Your task to perform on an android device: turn off translation in the chrome app Image 0: 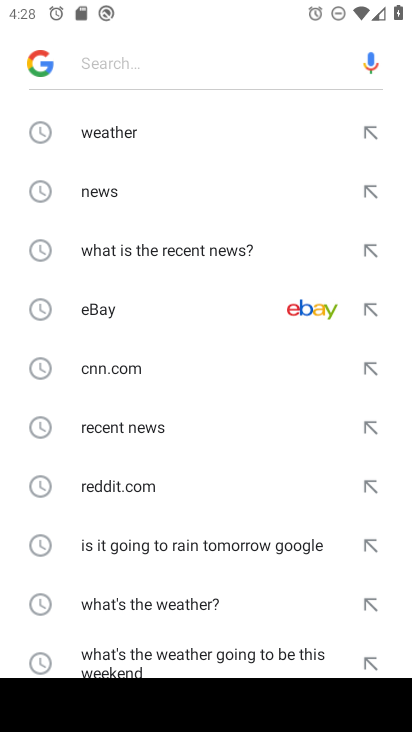
Step 0: press back button
Your task to perform on an android device: turn off translation in the chrome app Image 1: 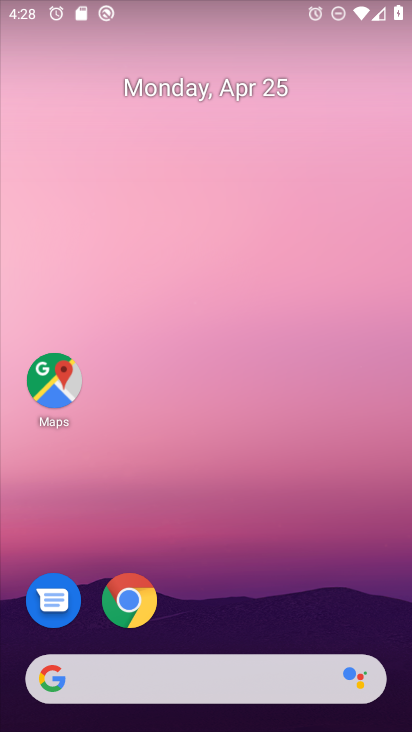
Step 1: drag from (220, 301) to (210, 37)
Your task to perform on an android device: turn off translation in the chrome app Image 2: 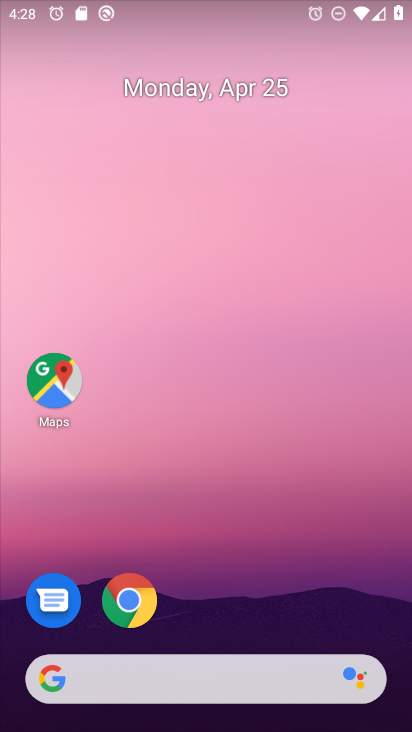
Step 2: drag from (262, 532) to (257, 0)
Your task to perform on an android device: turn off translation in the chrome app Image 3: 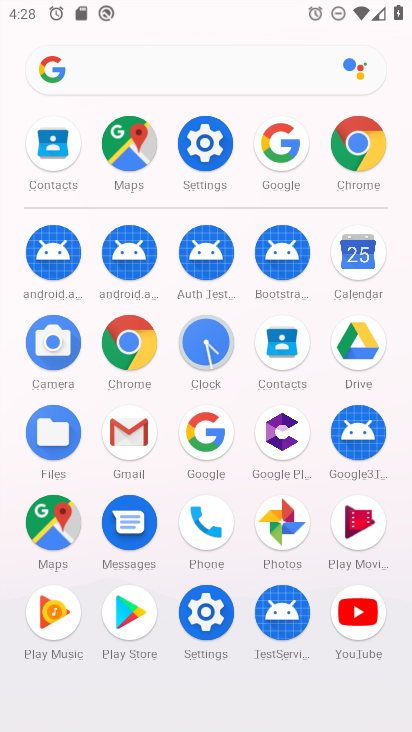
Step 3: drag from (2, 489) to (8, 236)
Your task to perform on an android device: turn off translation in the chrome app Image 4: 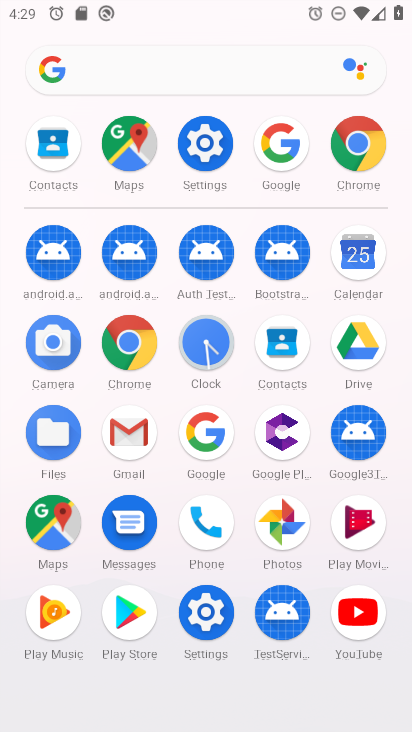
Step 4: drag from (4, 454) to (8, 186)
Your task to perform on an android device: turn off translation in the chrome app Image 5: 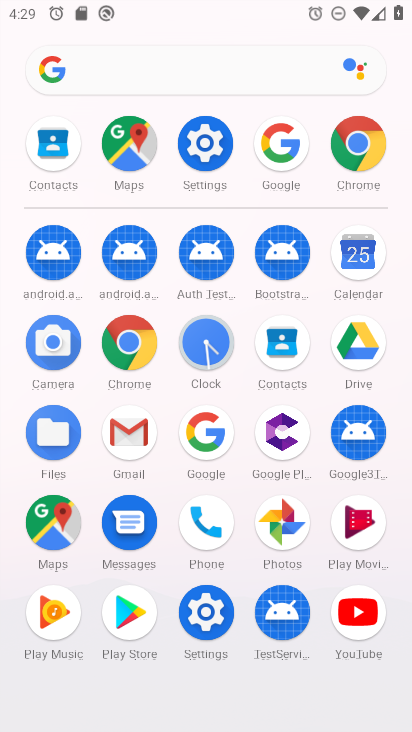
Step 5: click (126, 333)
Your task to perform on an android device: turn off translation in the chrome app Image 6: 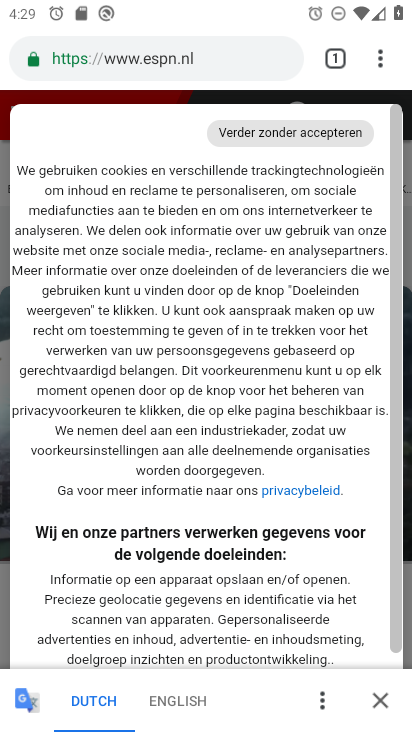
Step 6: drag from (377, 59) to (186, 651)
Your task to perform on an android device: turn off translation in the chrome app Image 7: 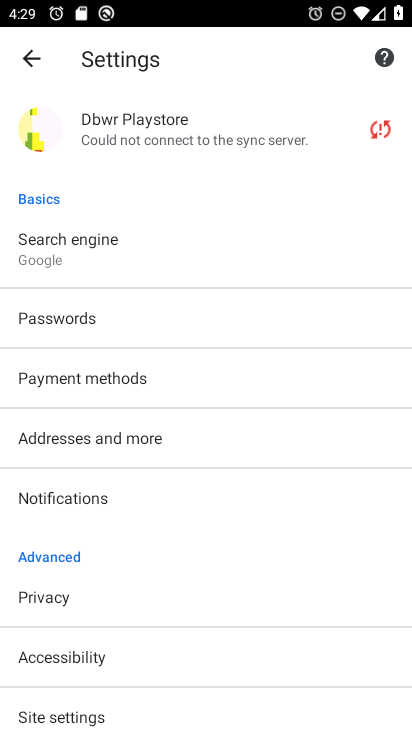
Step 7: drag from (186, 615) to (221, 146)
Your task to perform on an android device: turn off translation in the chrome app Image 8: 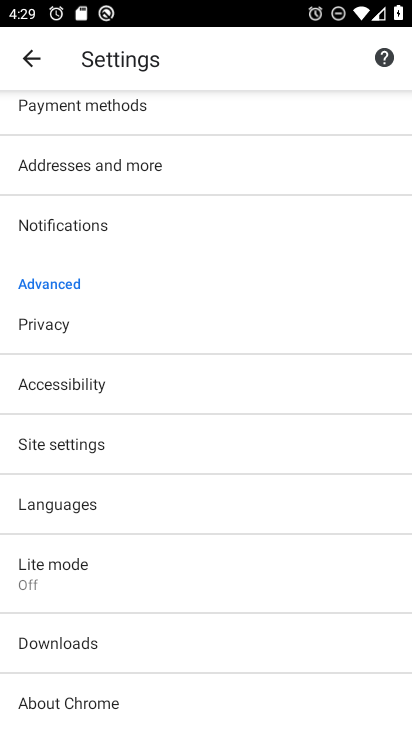
Step 8: click (87, 506)
Your task to perform on an android device: turn off translation in the chrome app Image 9: 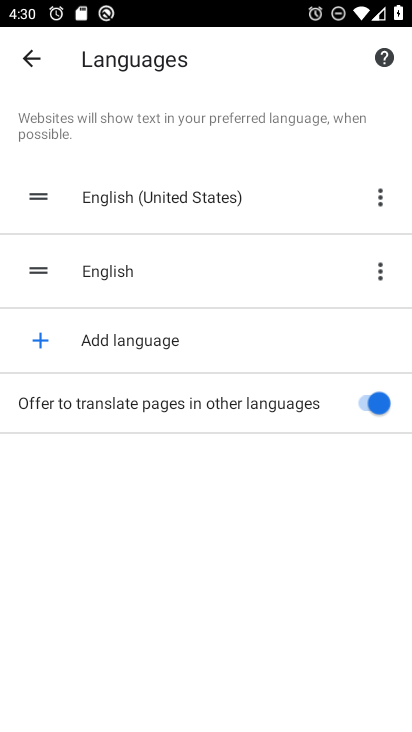
Step 9: click (364, 392)
Your task to perform on an android device: turn off translation in the chrome app Image 10: 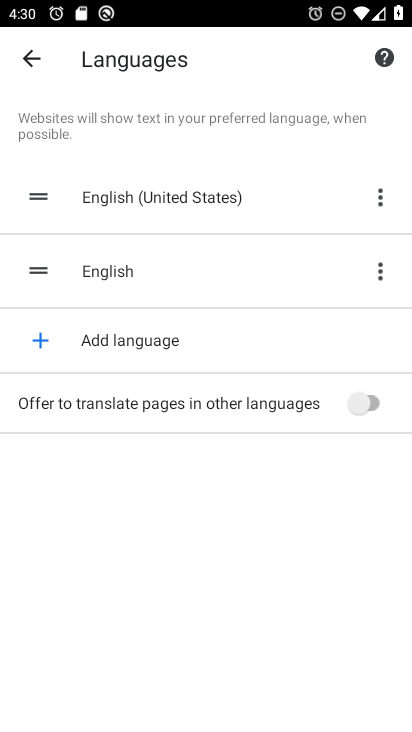
Step 10: task complete